Your task to perform on an android device: change text size in settings app Image 0: 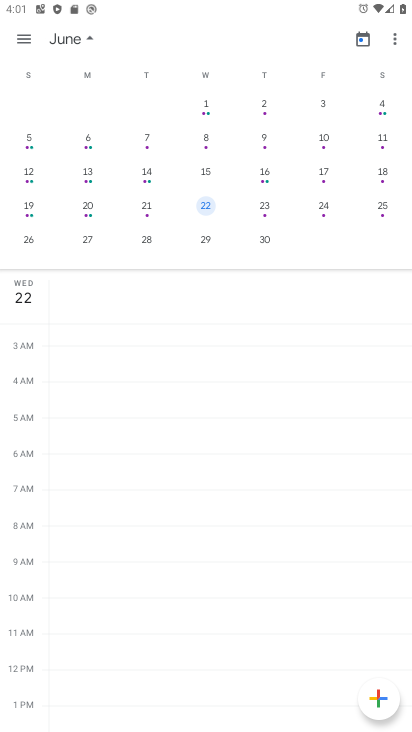
Step 0: press home button
Your task to perform on an android device: change text size in settings app Image 1: 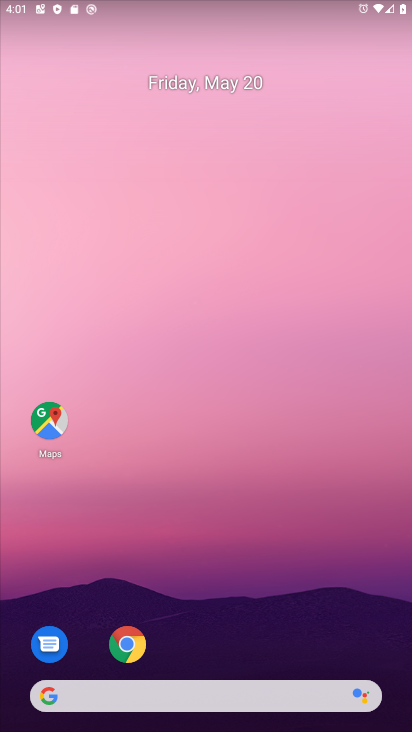
Step 1: drag from (248, 580) to (189, 94)
Your task to perform on an android device: change text size in settings app Image 2: 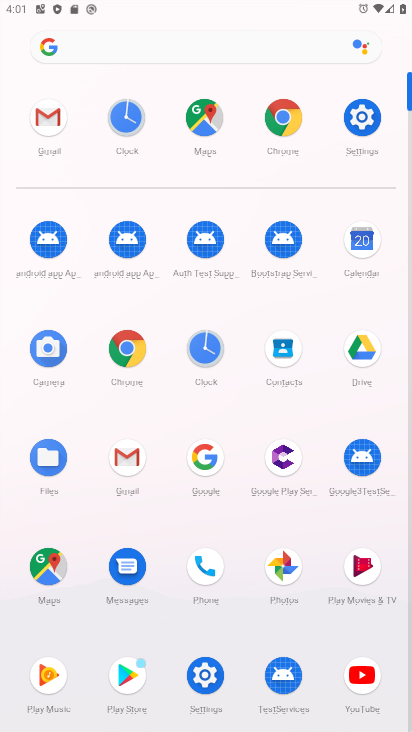
Step 2: click (372, 119)
Your task to perform on an android device: change text size in settings app Image 3: 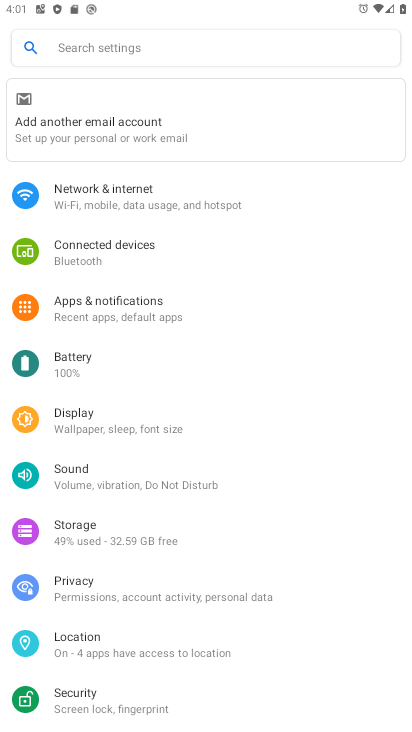
Step 3: click (164, 434)
Your task to perform on an android device: change text size in settings app Image 4: 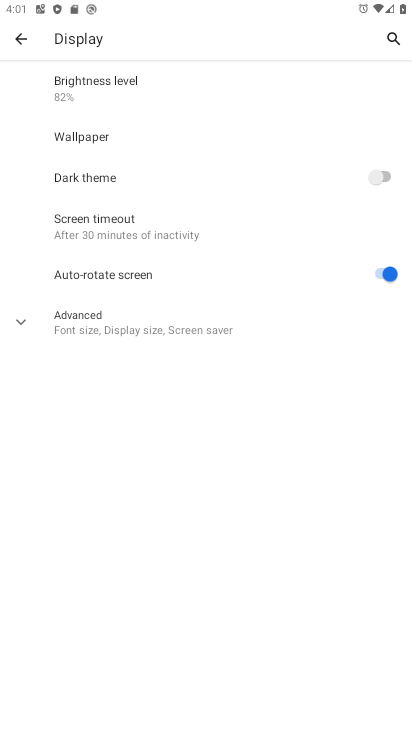
Step 4: click (134, 316)
Your task to perform on an android device: change text size in settings app Image 5: 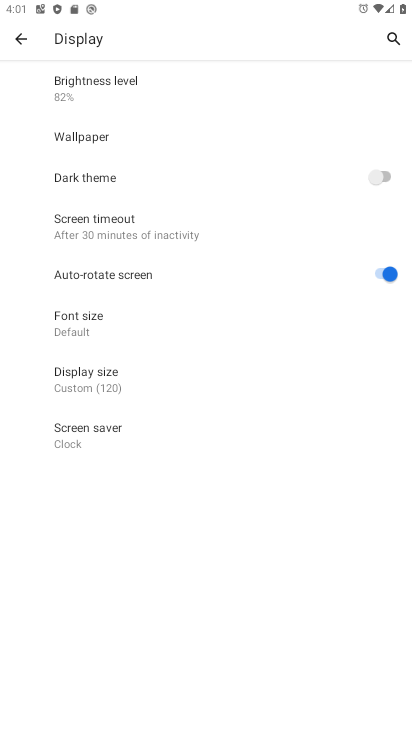
Step 5: click (131, 325)
Your task to perform on an android device: change text size in settings app Image 6: 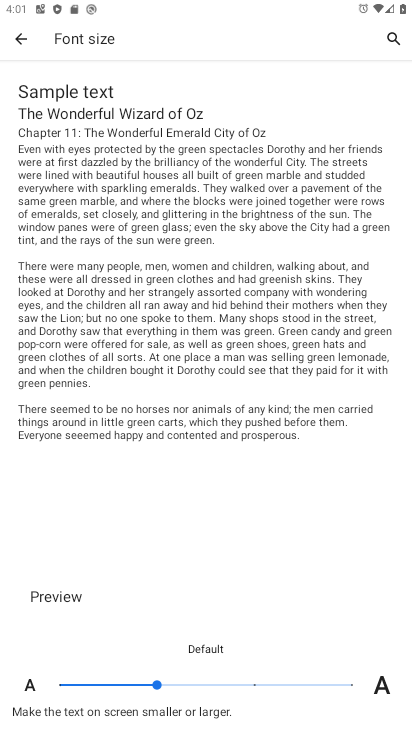
Step 6: click (202, 683)
Your task to perform on an android device: change text size in settings app Image 7: 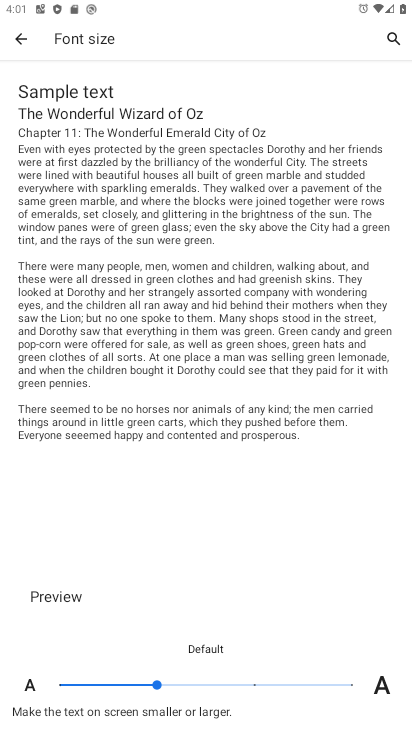
Step 7: task complete